Your task to perform on an android device: turn off improve location accuracy Image 0: 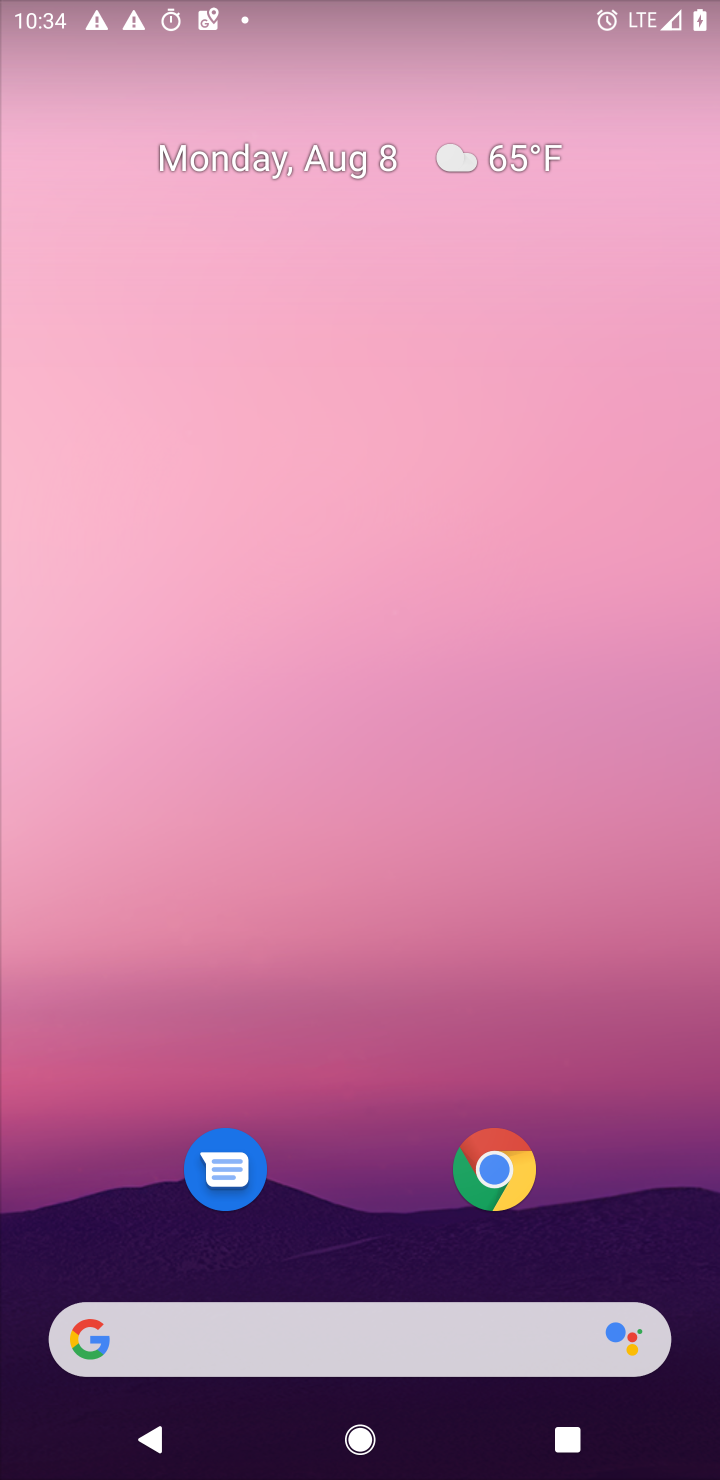
Step 0: drag from (416, 652) to (478, 126)
Your task to perform on an android device: turn off improve location accuracy Image 1: 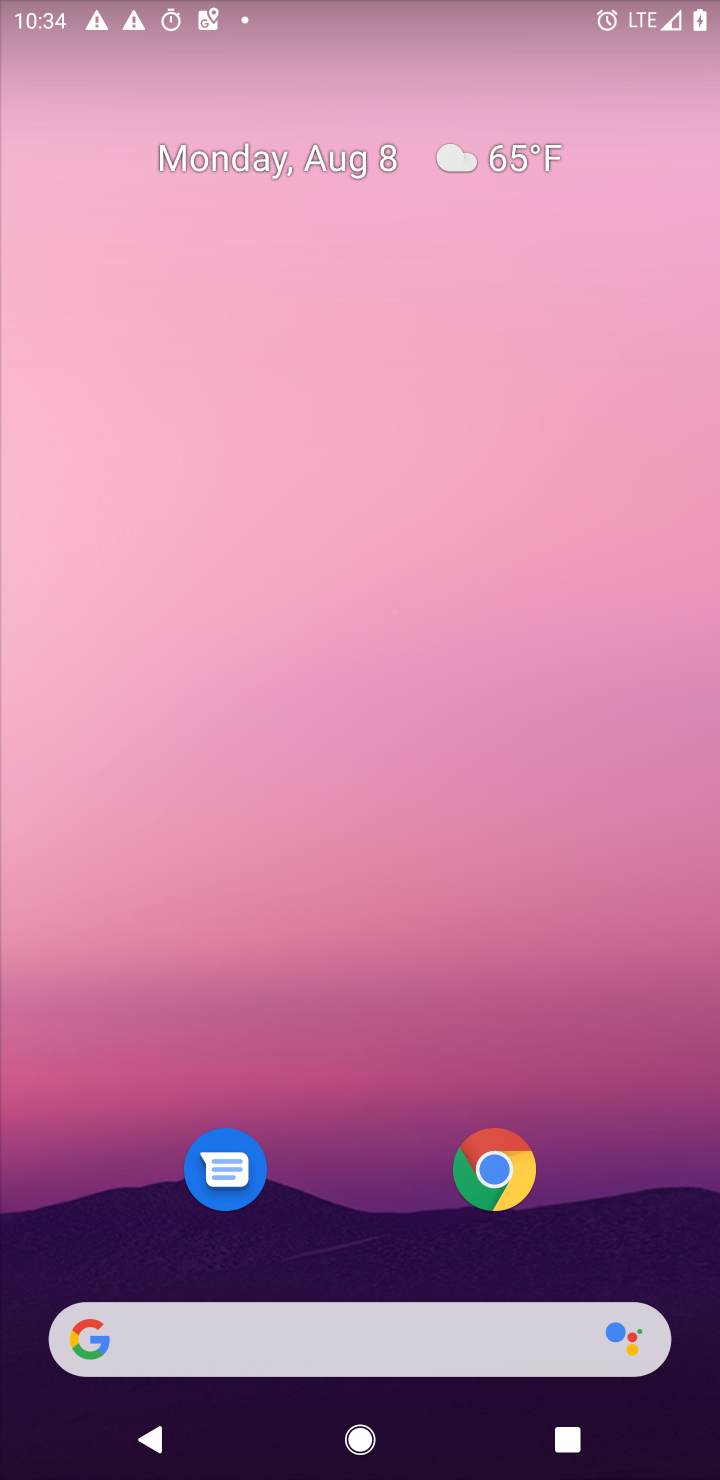
Step 1: drag from (300, 1267) to (511, 17)
Your task to perform on an android device: turn off improve location accuracy Image 2: 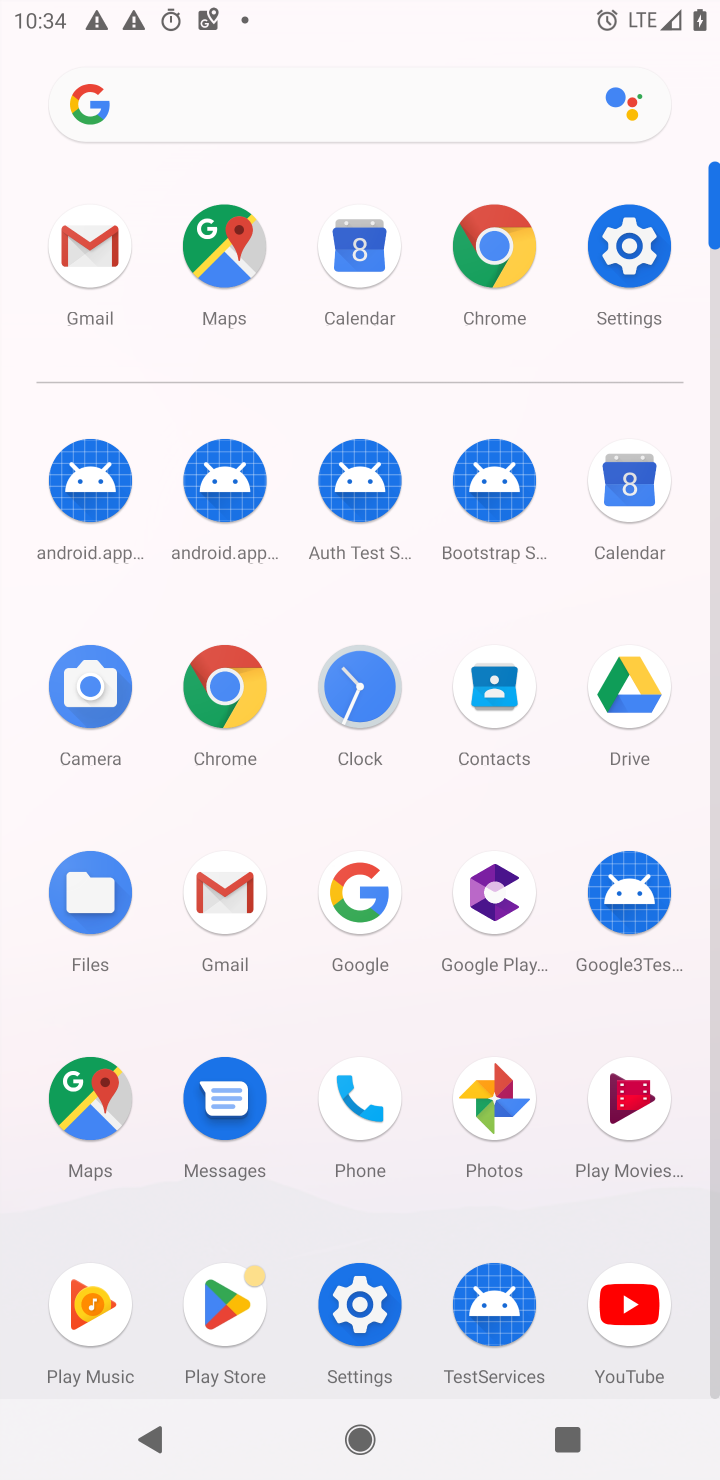
Step 2: click (639, 236)
Your task to perform on an android device: turn off improve location accuracy Image 3: 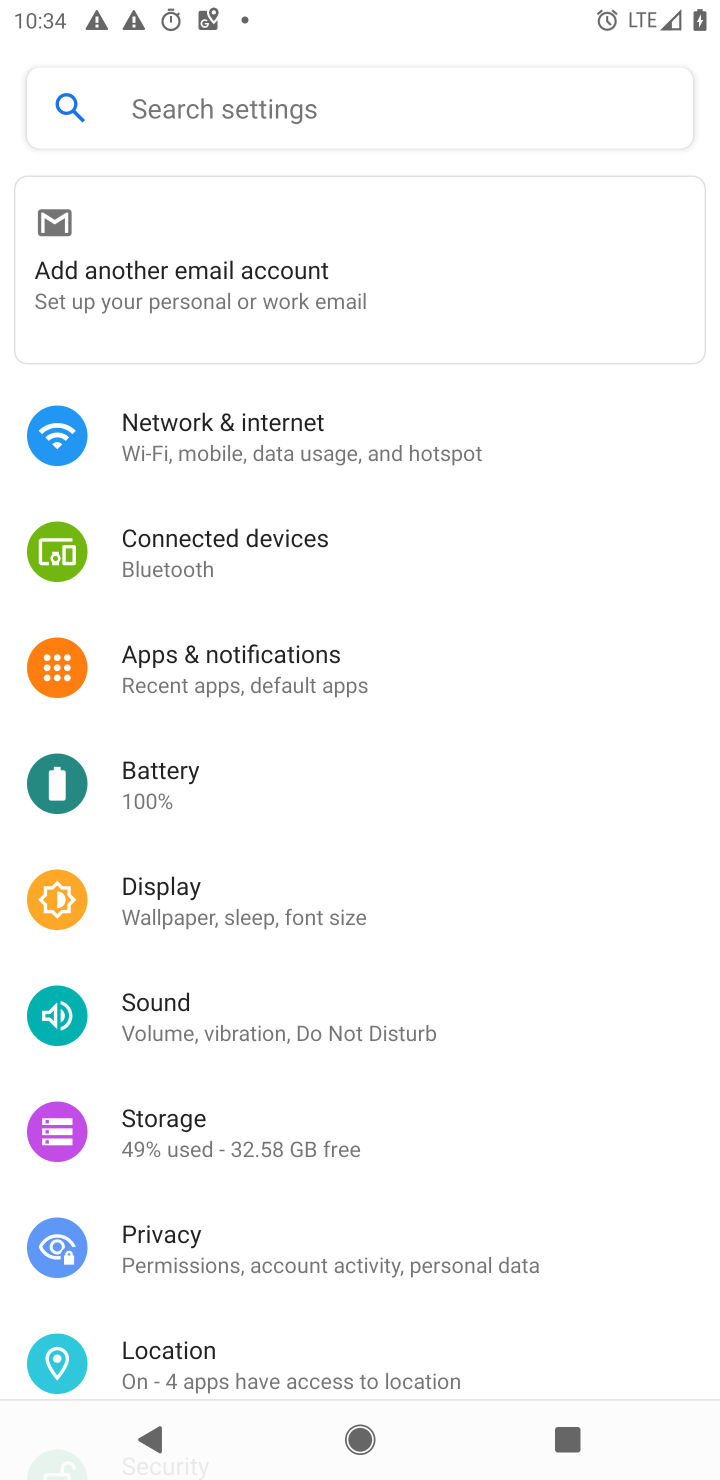
Step 3: click (215, 1363)
Your task to perform on an android device: turn off improve location accuracy Image 4: 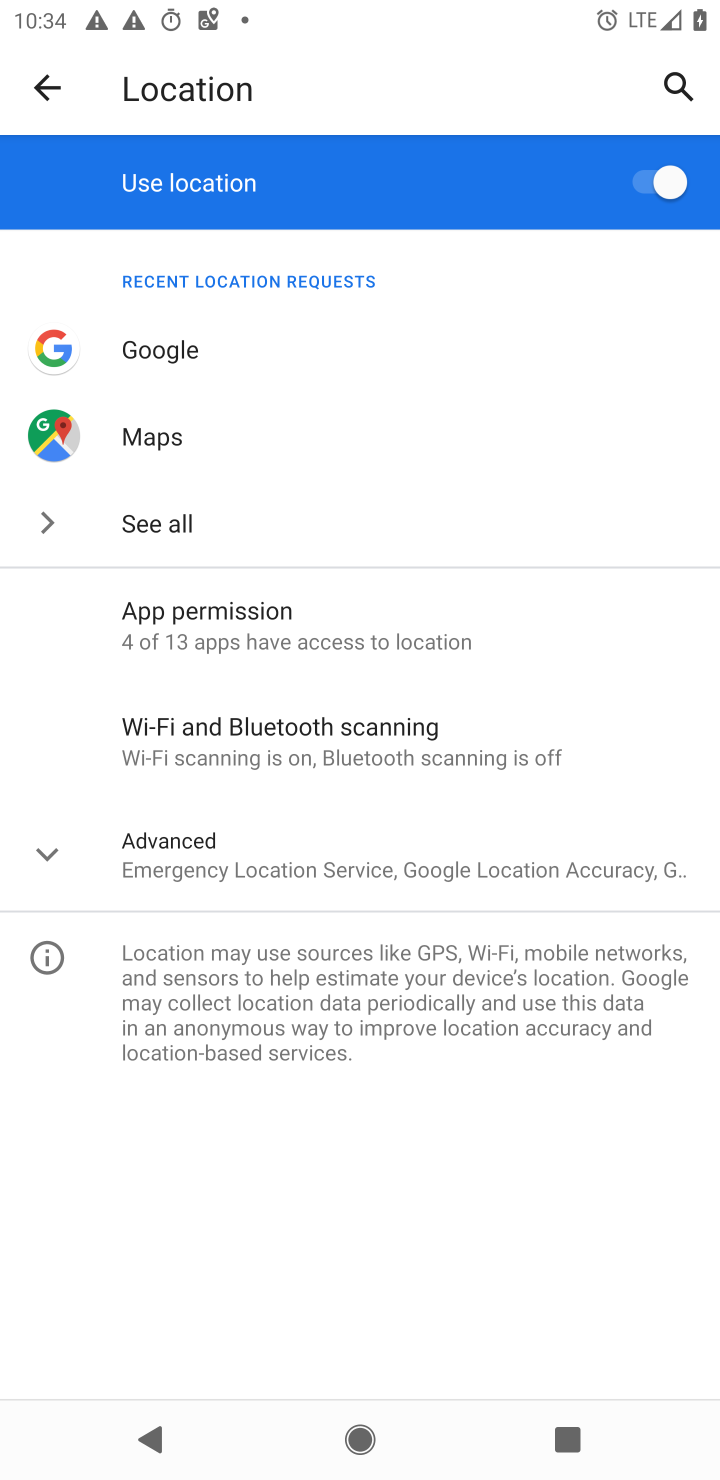
Step 4: click (245, 632)
Your task to perform on an android device: turn off improve location accuracy Image 5: 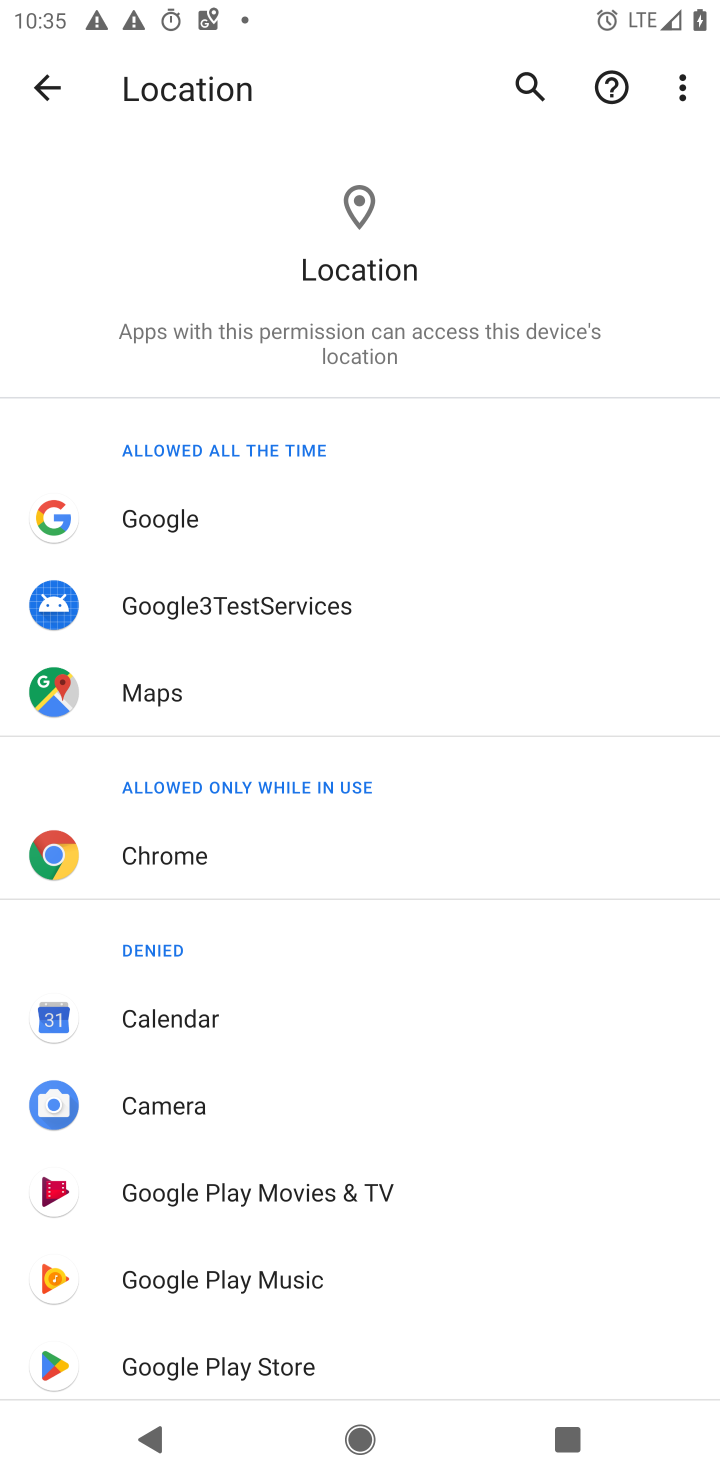
Step 5: click (43, 85)
Your task to perform on an android device: turn off improve location accuracy Image 6: 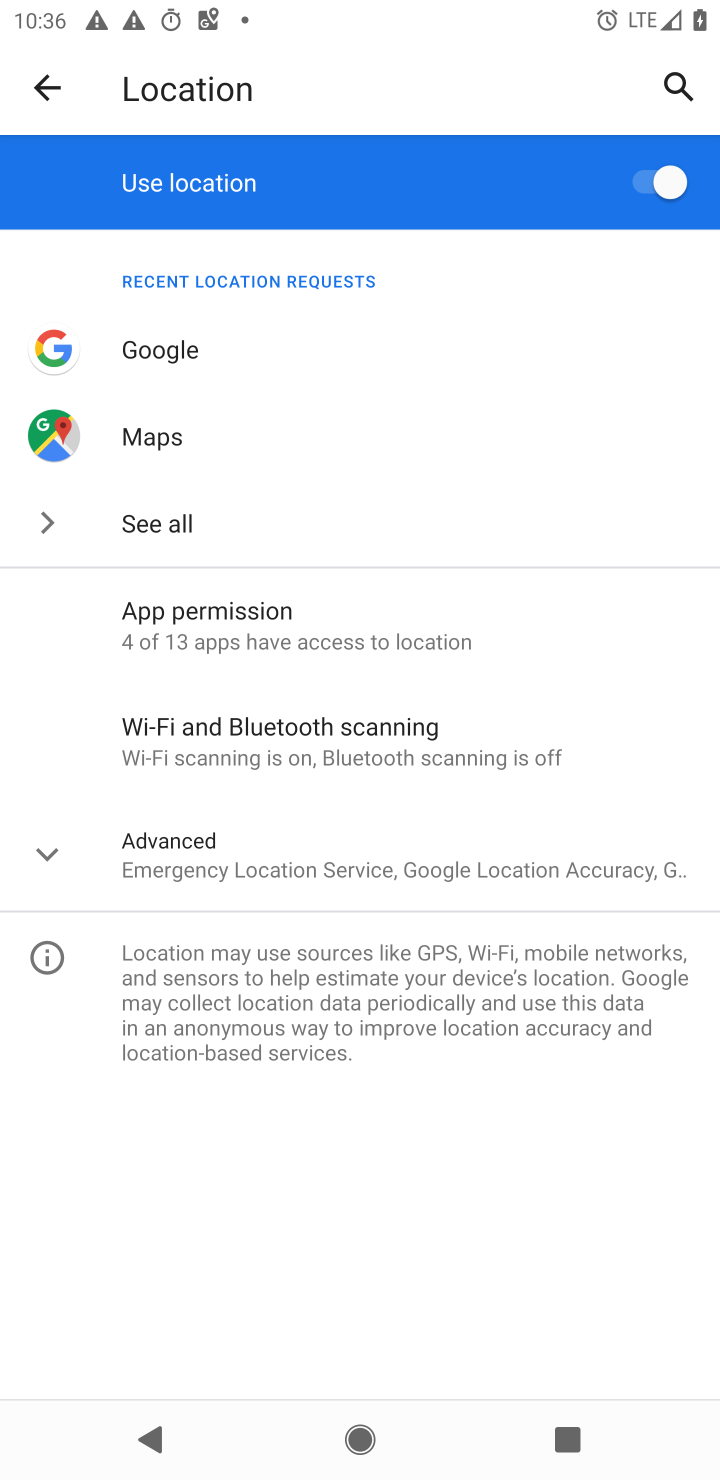
Step 6: click (306, 860)
Your task to perform on an android device: turn off improve location accuracy Image 7: 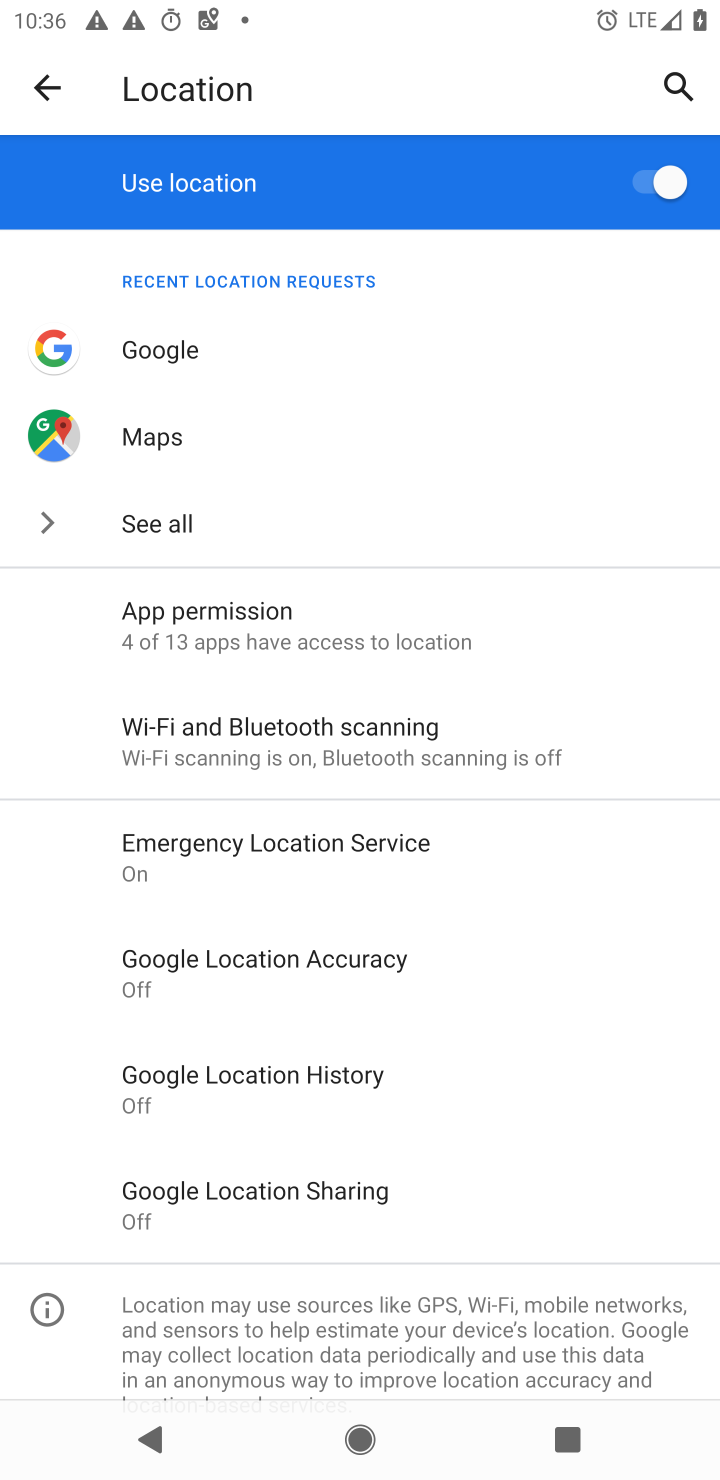
Step 7: click (283, 955)
Your task to perform on an android device: turn off improve location accuracy Image 8: 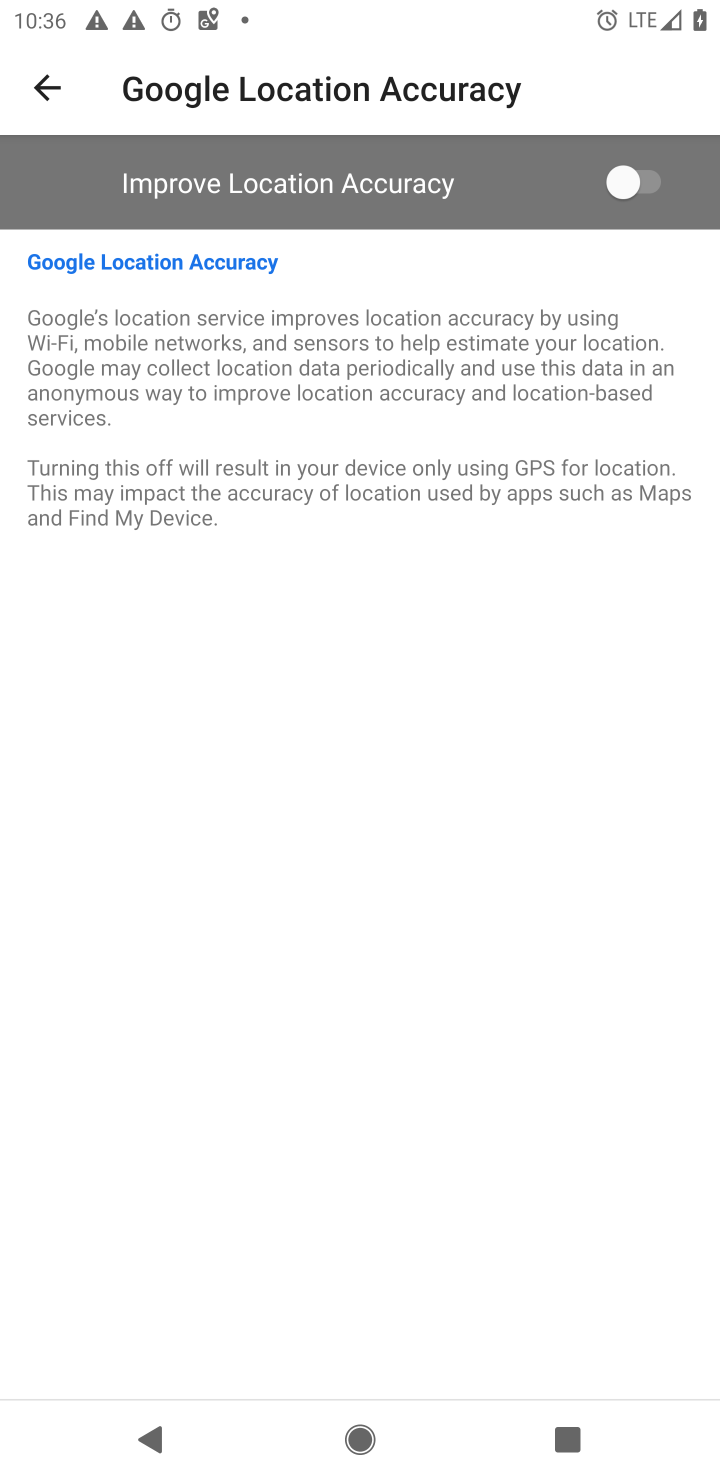
Step 8: task complete